Your task to perform on an android device: Open settings on Google Maps Image 0: 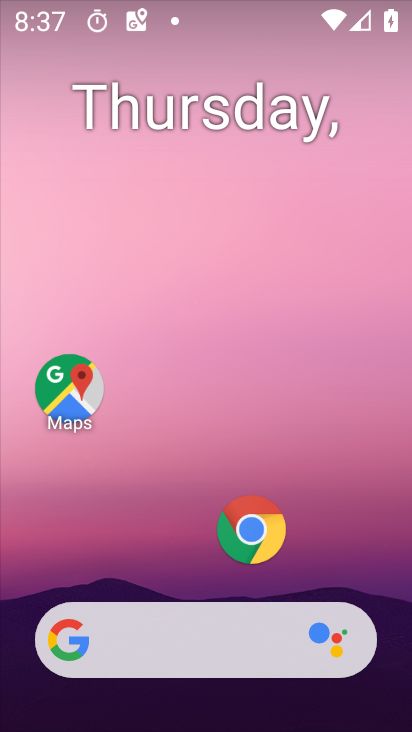
Step 0: click (69, 383)
Your task to perform on an android device: Open settings on Google Maps Image 1: 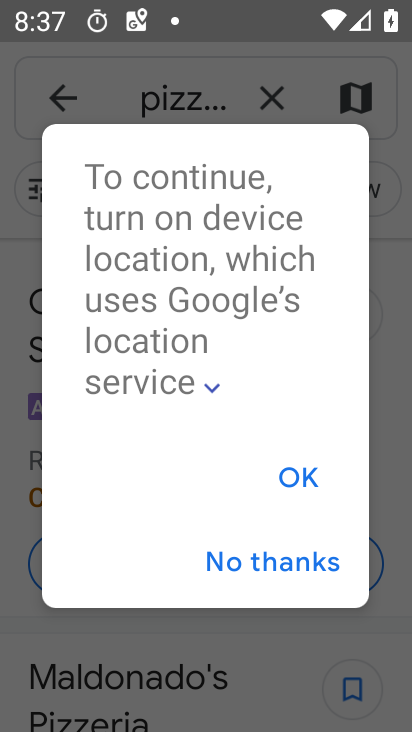
Step 1: click (295, 479)
Your task to perform on an android device: Open settings on Google Maps Image 2: 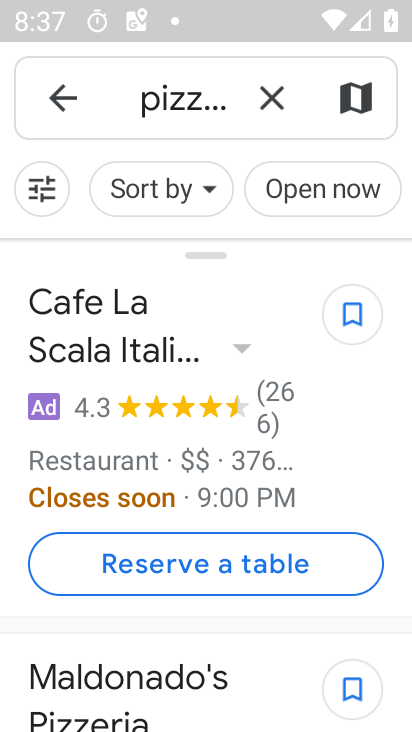
Step 2: click (63, 104)
Your task to perform on an android device: Open settings on Google Maps Image 3: 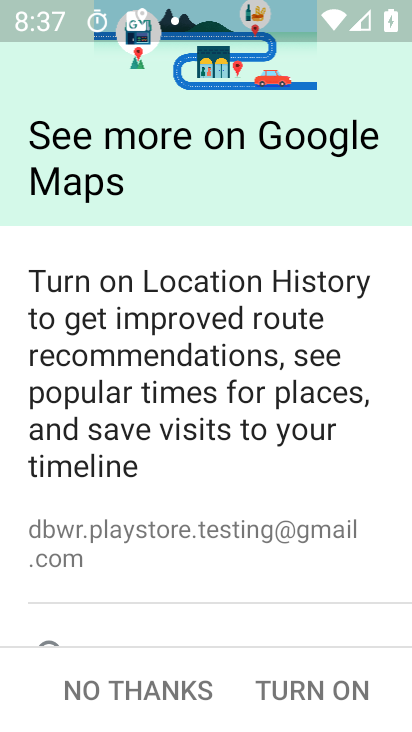
Step 3: drag from (303, 613) to (336, 103)
Your task to perform on an android device: Open settings on Google Maps Image 4: 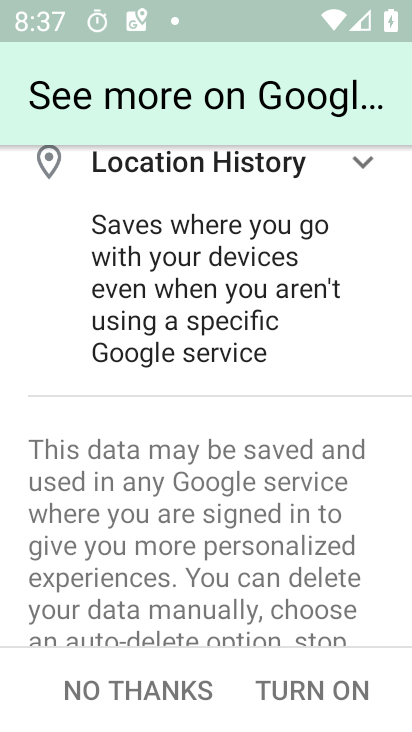
Step 4: drag from (299, 621) to (343, 142)
Your task to perform on an android device: Open settings on Google Maps Image 5: 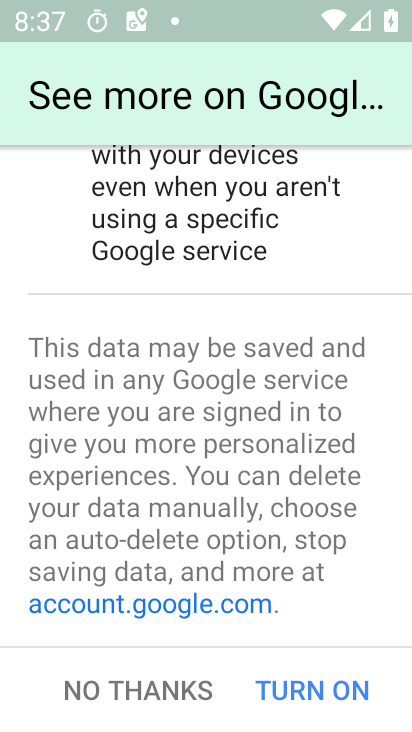
Step 5: click (309, 686)
Your task to perform on an android device: Open settings on Google Maps Image 6: 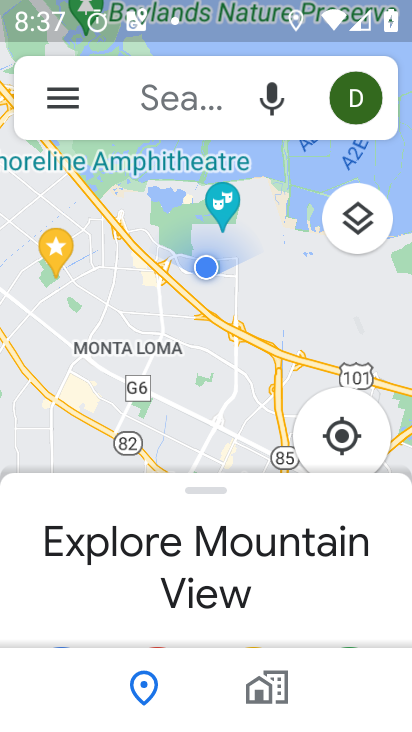
Step 6: click (72, 94)
Your task to perform on an android device: Open settings on Google Maps Image 7: 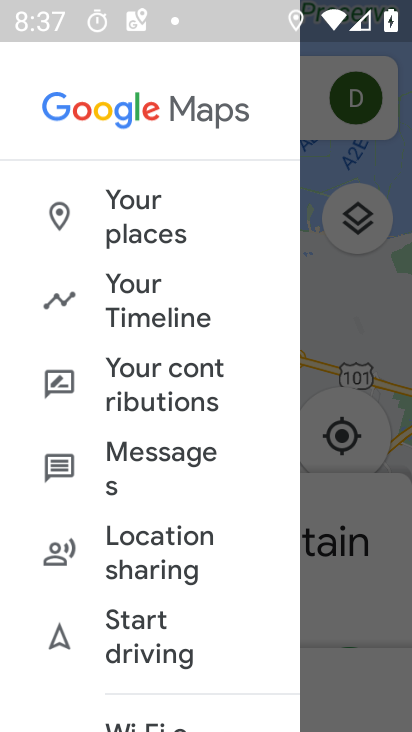
Step 7: drag from (167, 693) to (180, 137)
Your task to perform on an android device: Open settings on Google Maps Image 8: 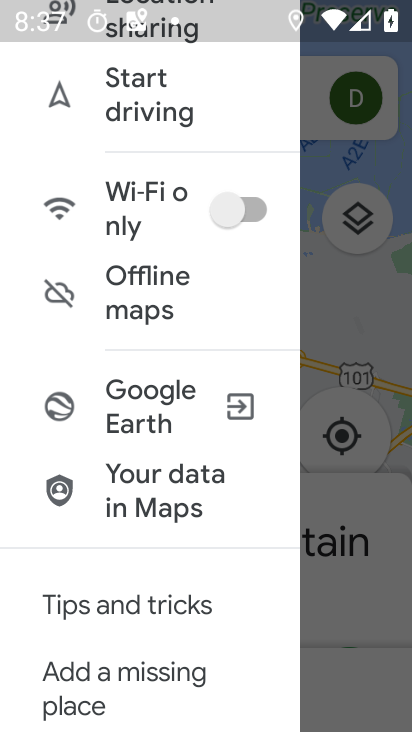
Step 8: drag from (143, 680) to (154, 117)
Your task to perform on an android device: Open settings on Google Maps Image 9: 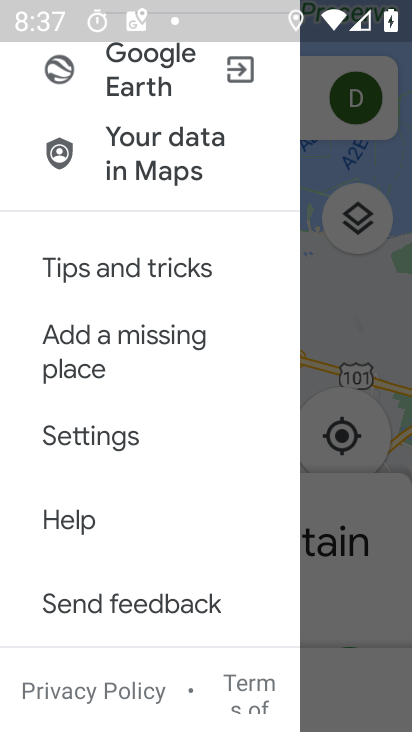
Step 9: click (148, 431)
Your task to perform on an android device: Open settings on Google Maps Image 10: 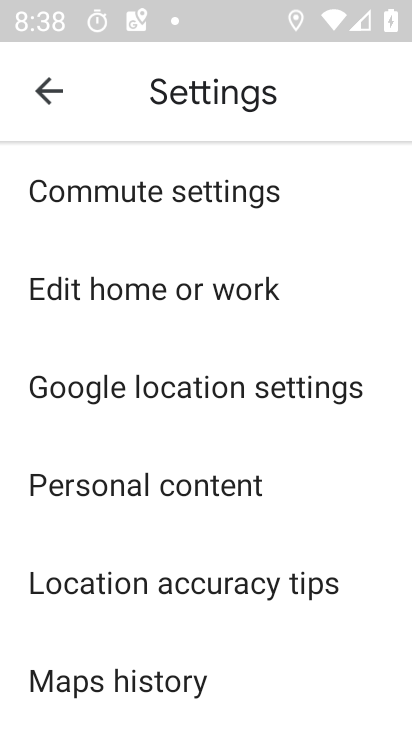
Step 10: task complete